Your task to perform on an android device: Open Google Maps Image 0: 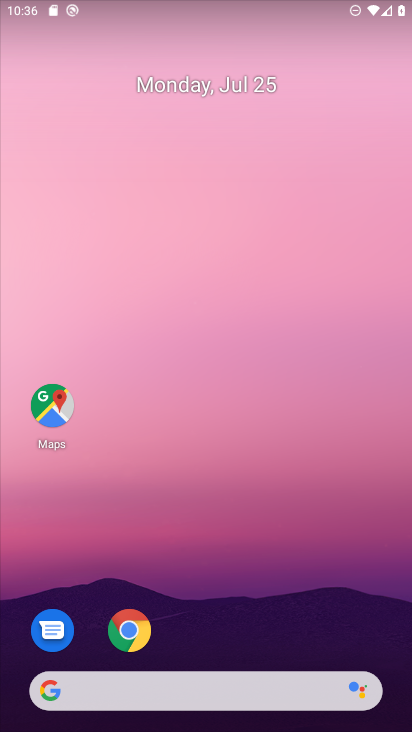
Step 0: drag from (320, 562) to (287, 82)
Your task to perform on an android device: Open Google Maps Image 1: 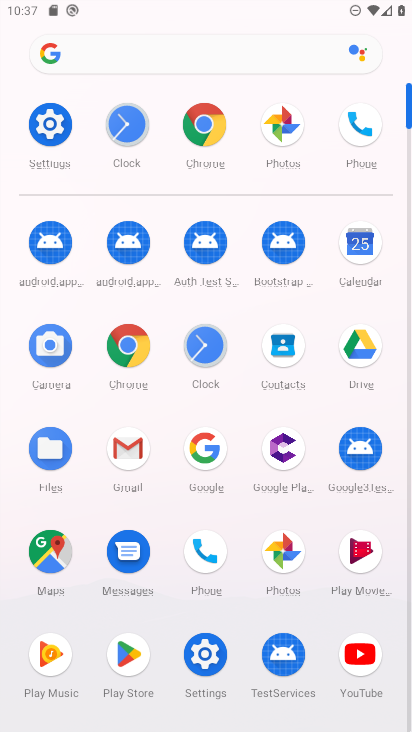
Step 1: click (52, 542)
Your task to perform on an android device: Open Google Maps Image 2: 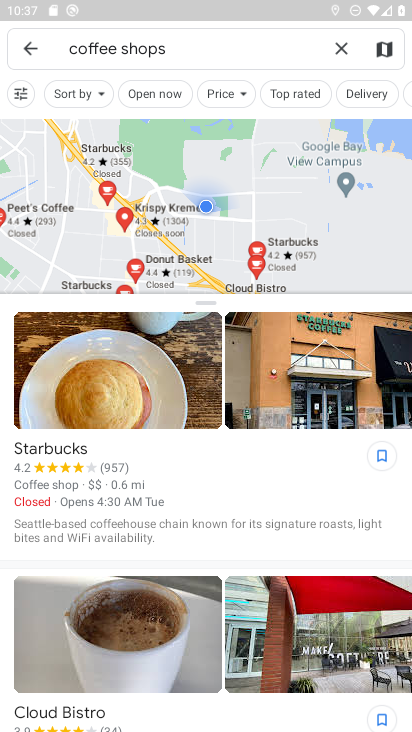
Step 2: task complete